Your task to perform on an android device: Open Yahoo.com Image 0: 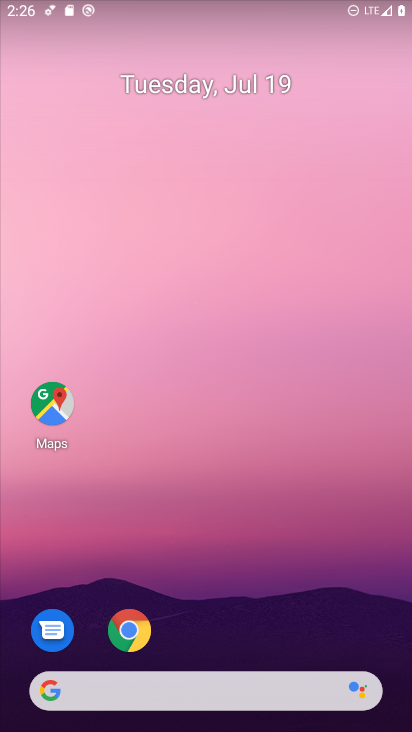
Step 0: click (132, 627)
Your task to perform on an android device: Open Yahoo.com Image 1: 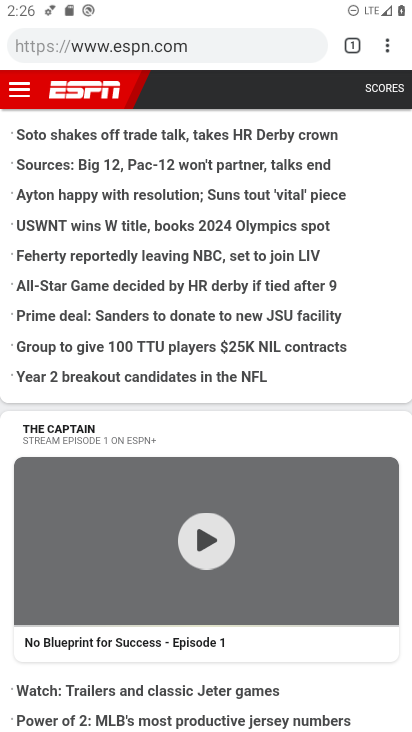
Step 1: click (225, 45)
Your task to perform on an android device: Open Yahoo.com Image 2: 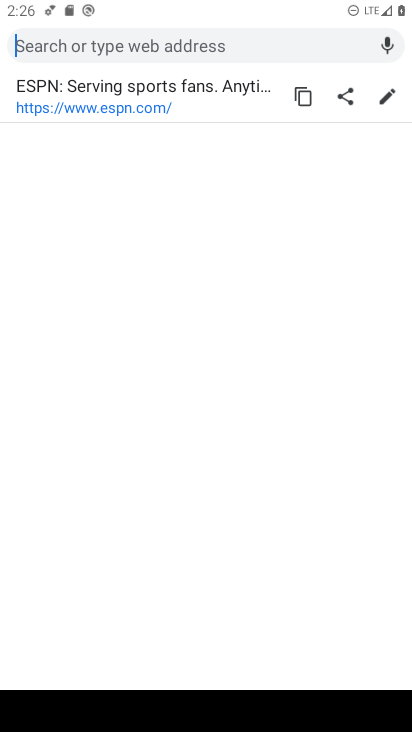
Step 2: type "yahoo.com"
Your task to perform on an android device: Open Yahoo.com Image 3: 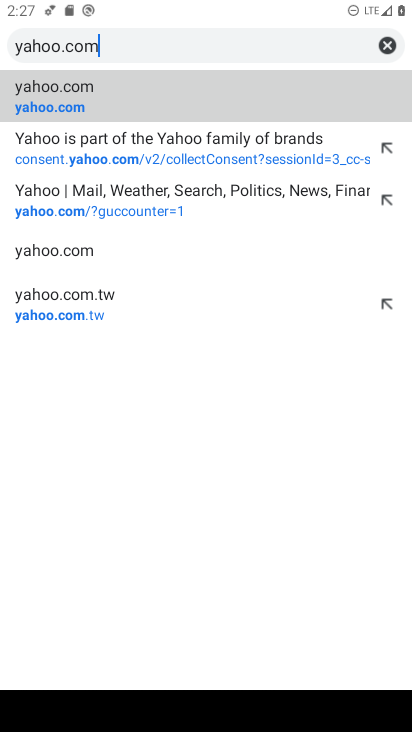
Step 3: click (47, 103)
Your task to perform on an android device: Open Yahoo.com Image 4: 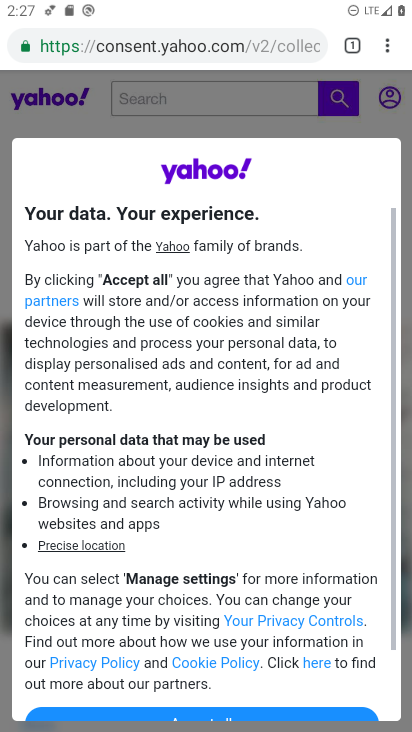
Step 4: drag from (236, 553) to (260, 247)
Your task to perform on an android device: Open Yahoo.com Image 5: 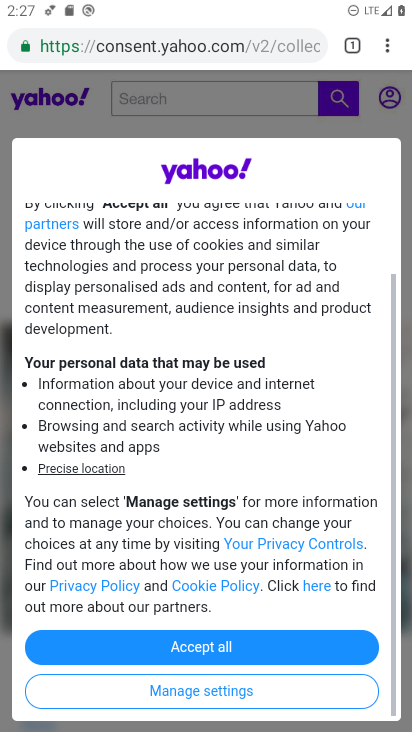
Step 5: click (194, 645)
Your task to perform on an android device: Open Yahoo.com Image 6: 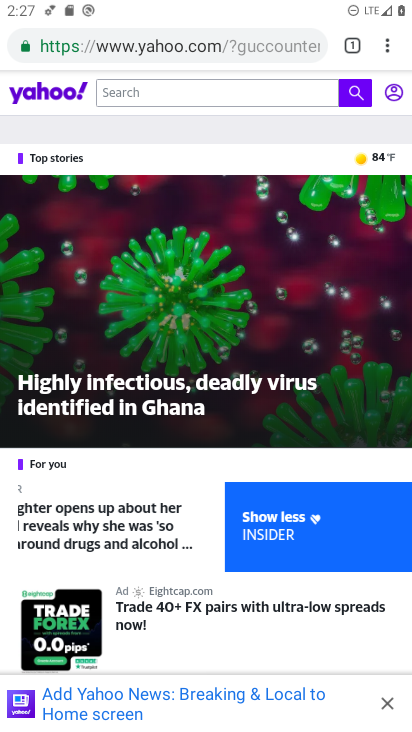
Step 6: task complete